Your task to perform on an android device: Go to Google maps Image 0: 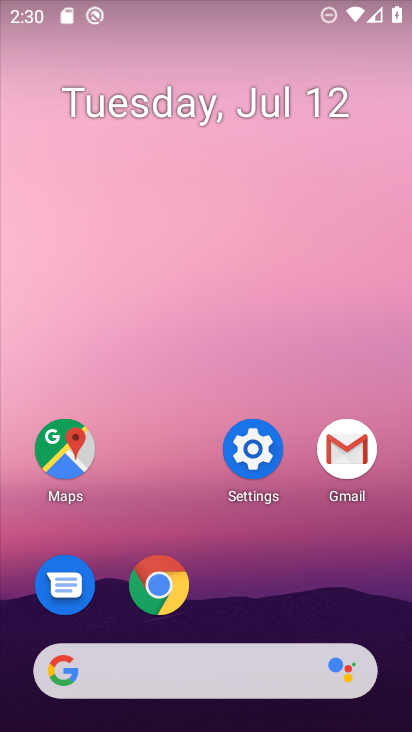
Step 0: click (67, 456)
Your task to perform on an android device: Go to Google maps Image 1: 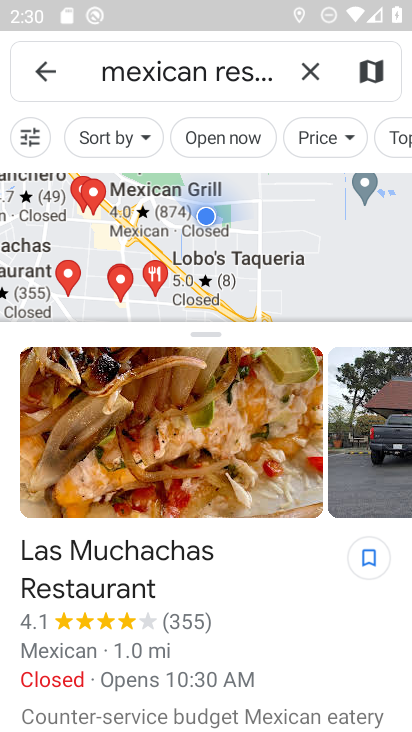
Step 1: click (302, 68)
Your task to perform on an android device: Go to Google maps Image 2: 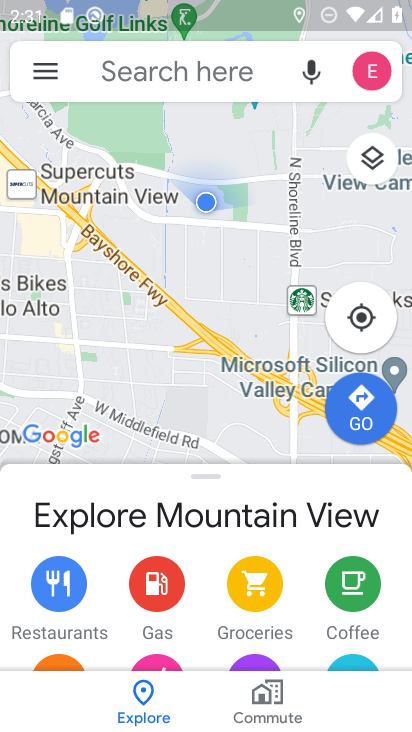
Step 2: task complete